Your task to perform on an android device: Open network settings Image 0: 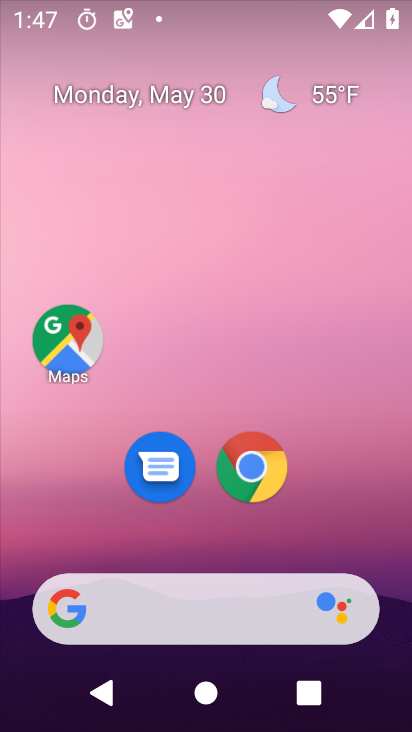
Step 0: drag from (389, 701) to (319, 152)
Your task to perform on an android device: Open network settings Image 1: 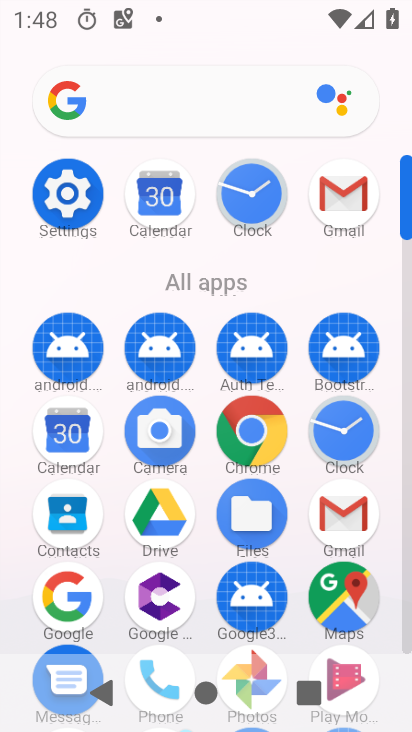
Step 1: click (62, 194)
Your task to perform on an android device: Open network settings Image 2: 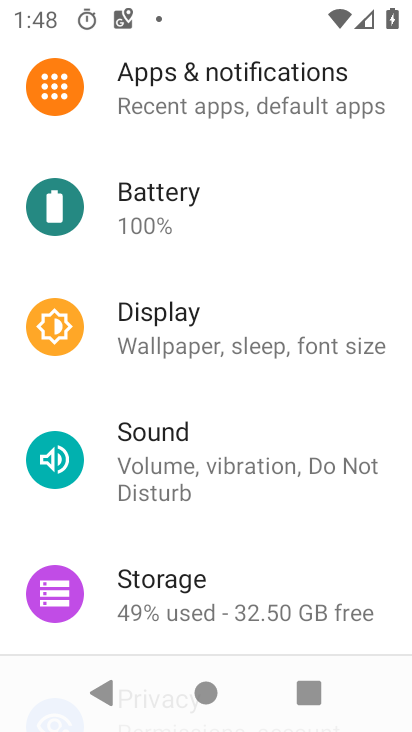
Step 2: drag from (257, 179) to (295, 480)
Your task to perform on an android device: Open network settings Image 3: 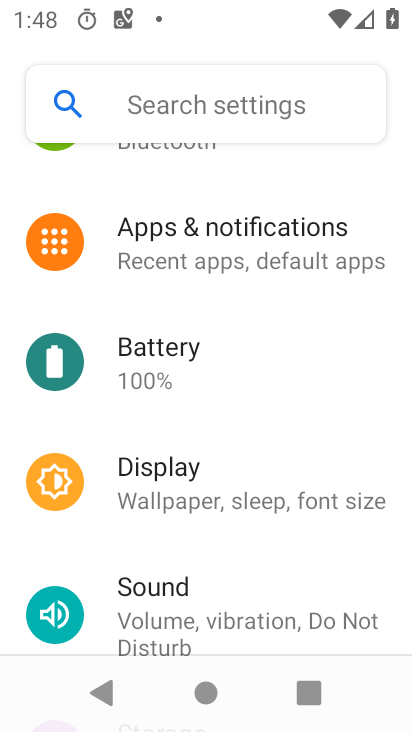
Step 3: drag from (200, 193) to (287, 574)
Your task to perform on an android device: Open network settings Image 4: 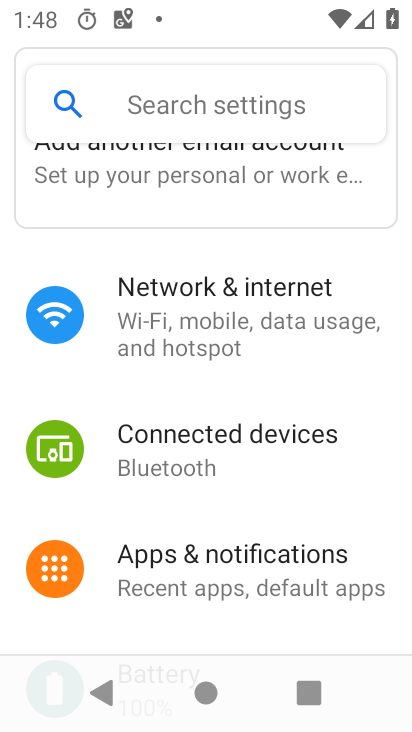
Step 4: click (208, 324)
Your task to perform on an android device: Open network settings Image 5: 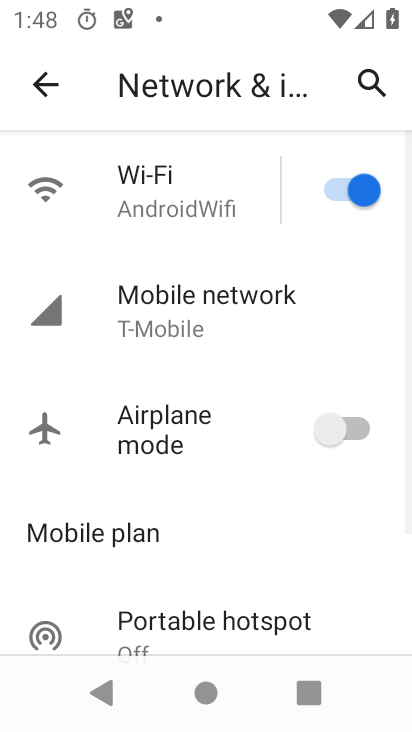
Step 5: click (208, 317)
Your task to perform on an android device: Open network settings Image 6: 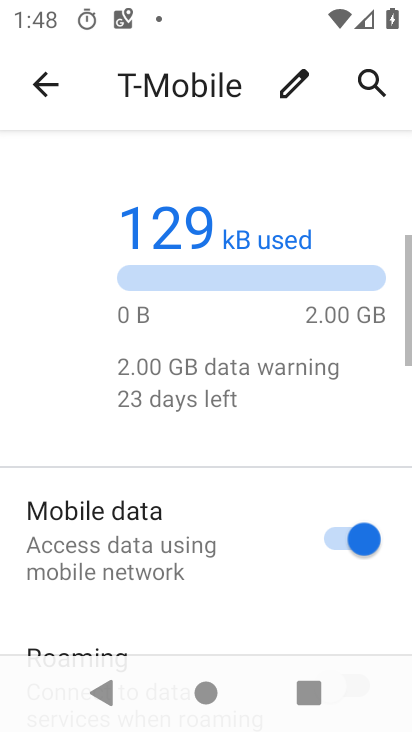
Step 6: click (233, 132)
Your task to perform on an android device: Open network settings Image 7: 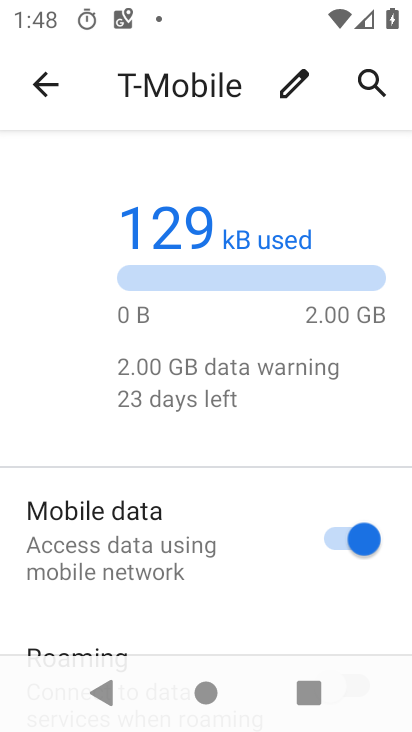
Step 7: task complete